Your task to perform on an android device: When is my next appointment? Image 0: 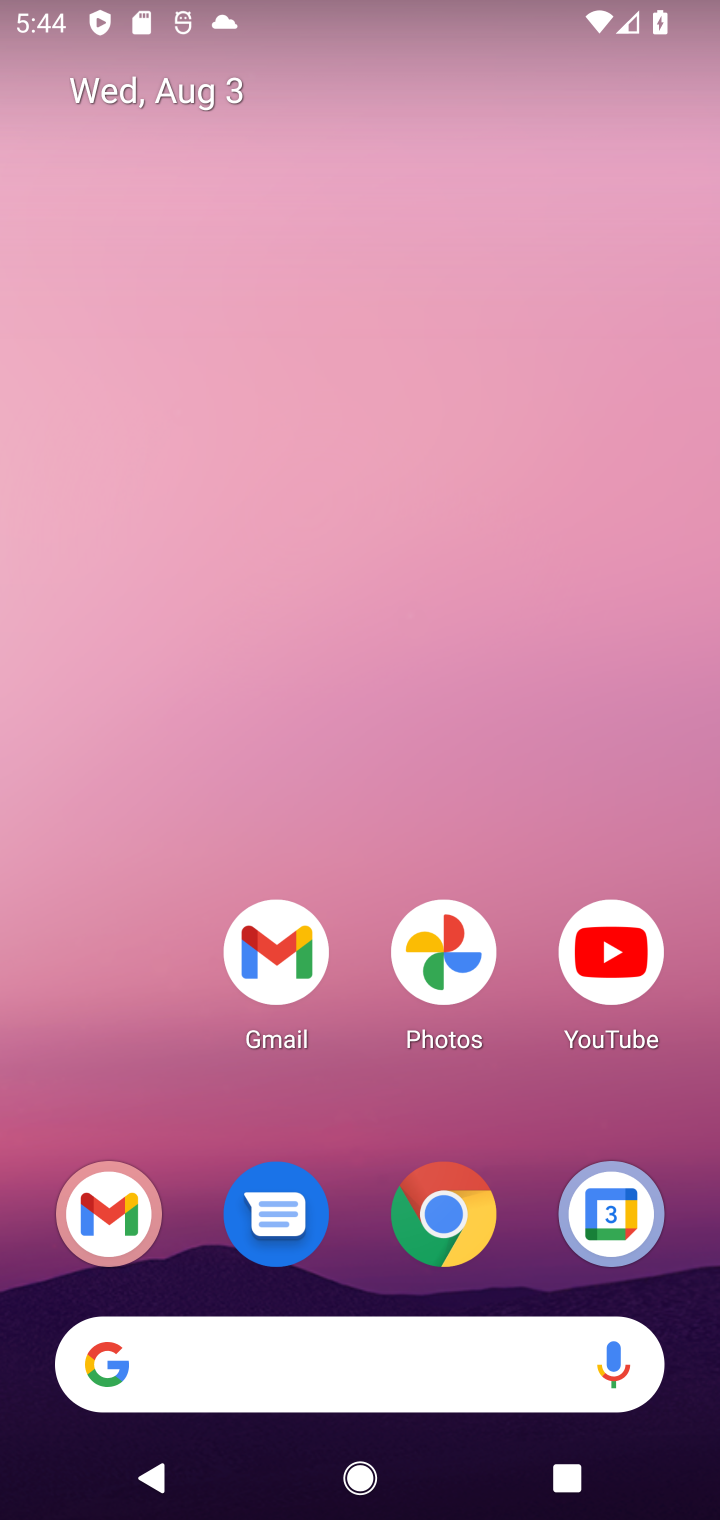
Step 0: drag from (36, 1239) to (545, 851)
Your task to perform on an android device: When is my next appointment? Image 1: 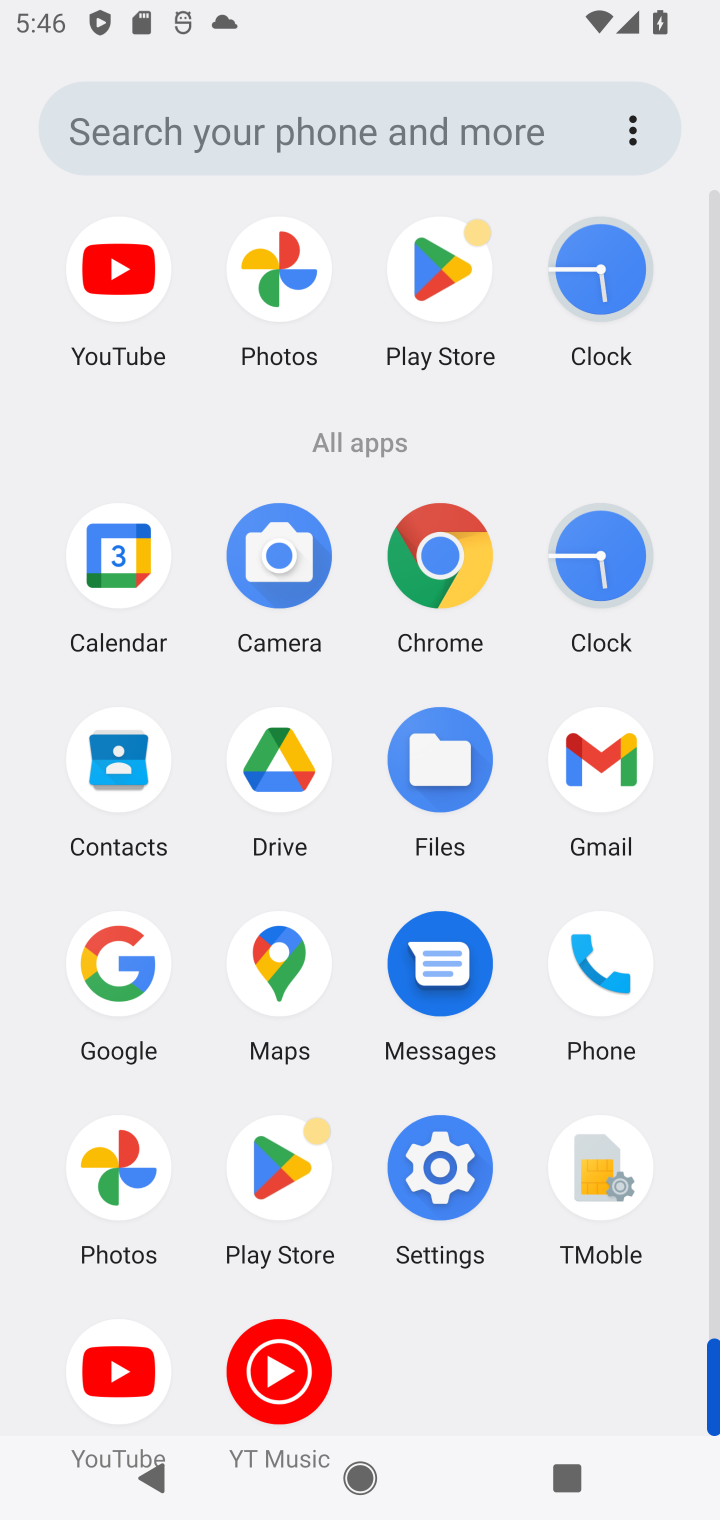
Step 1: click (129, 585)
Your task to perform on an android device: When is my next appointment? Image 2: 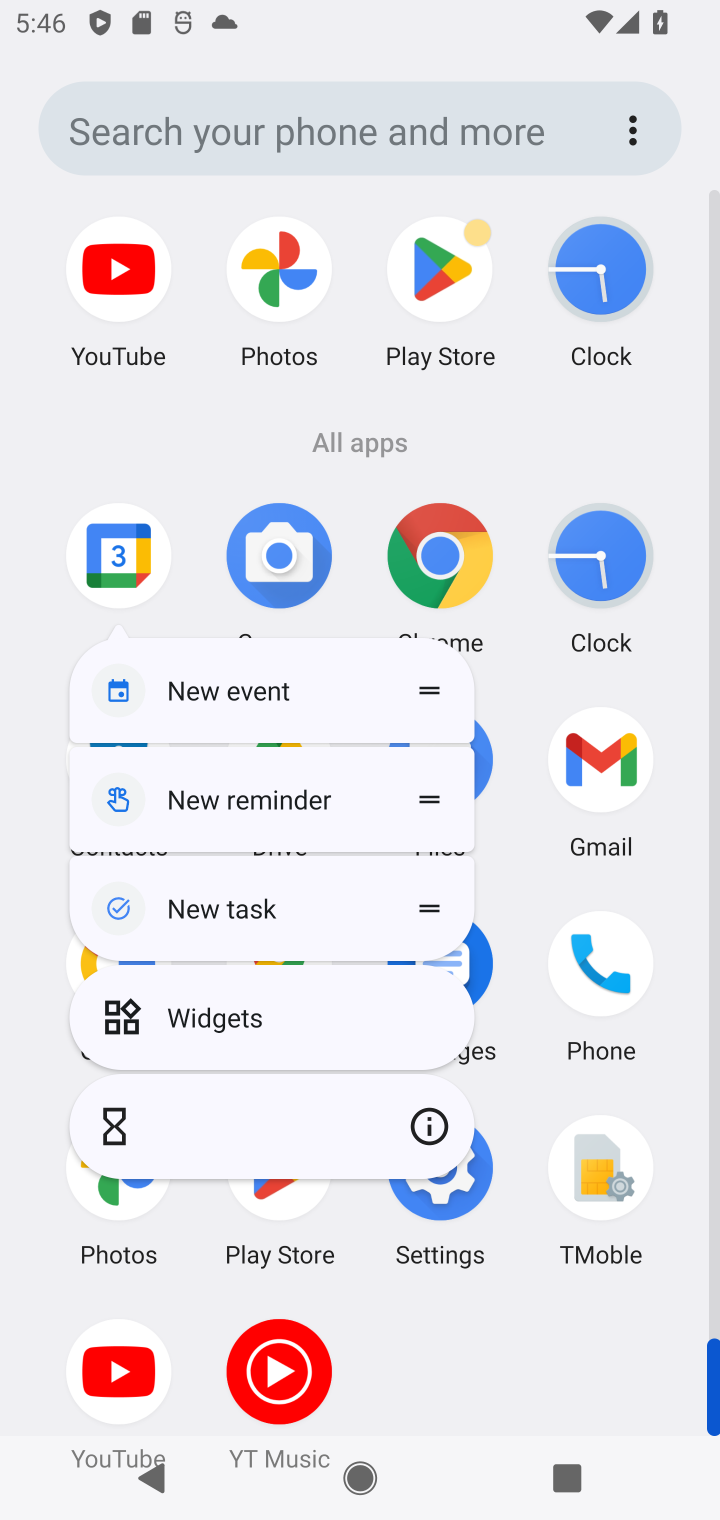
Step 2: click (127, 589)
Your task to perform on an android device: When is my next appointment? Image 3: 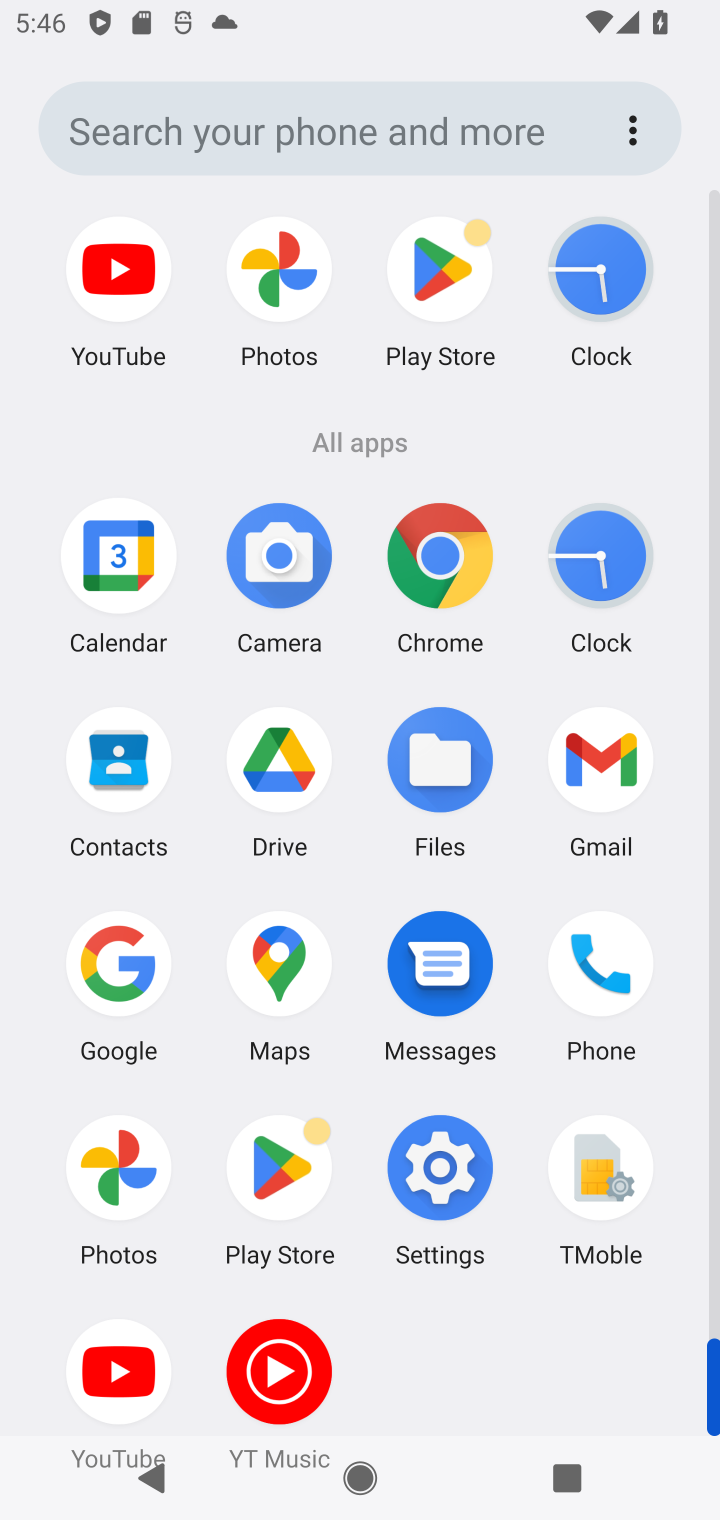
Step 3: click (113, 550)
Your task to perform on an android device: When is my next appointment? Image 4: 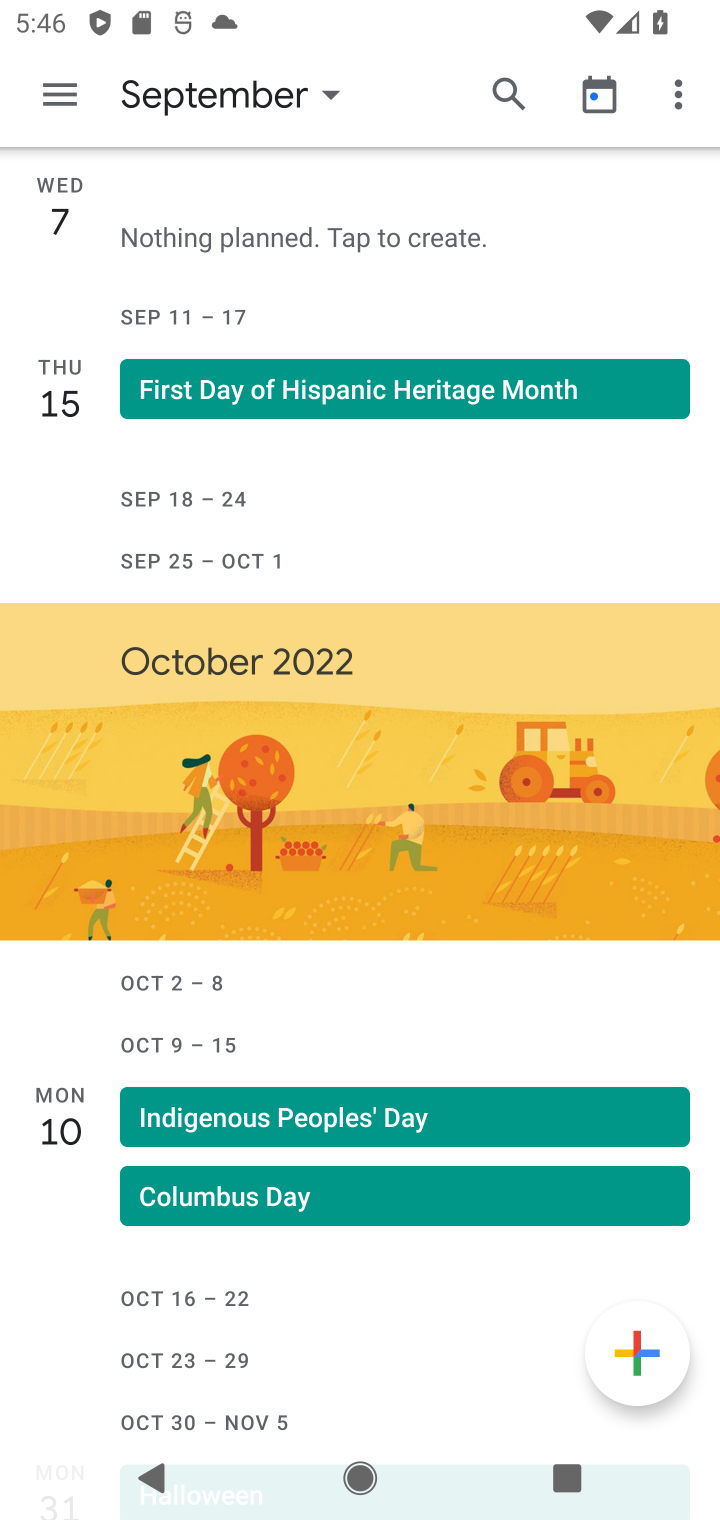
Step 4: click (255, 101)
Your task to perform on an android device: When is my next appointment? Image 5: 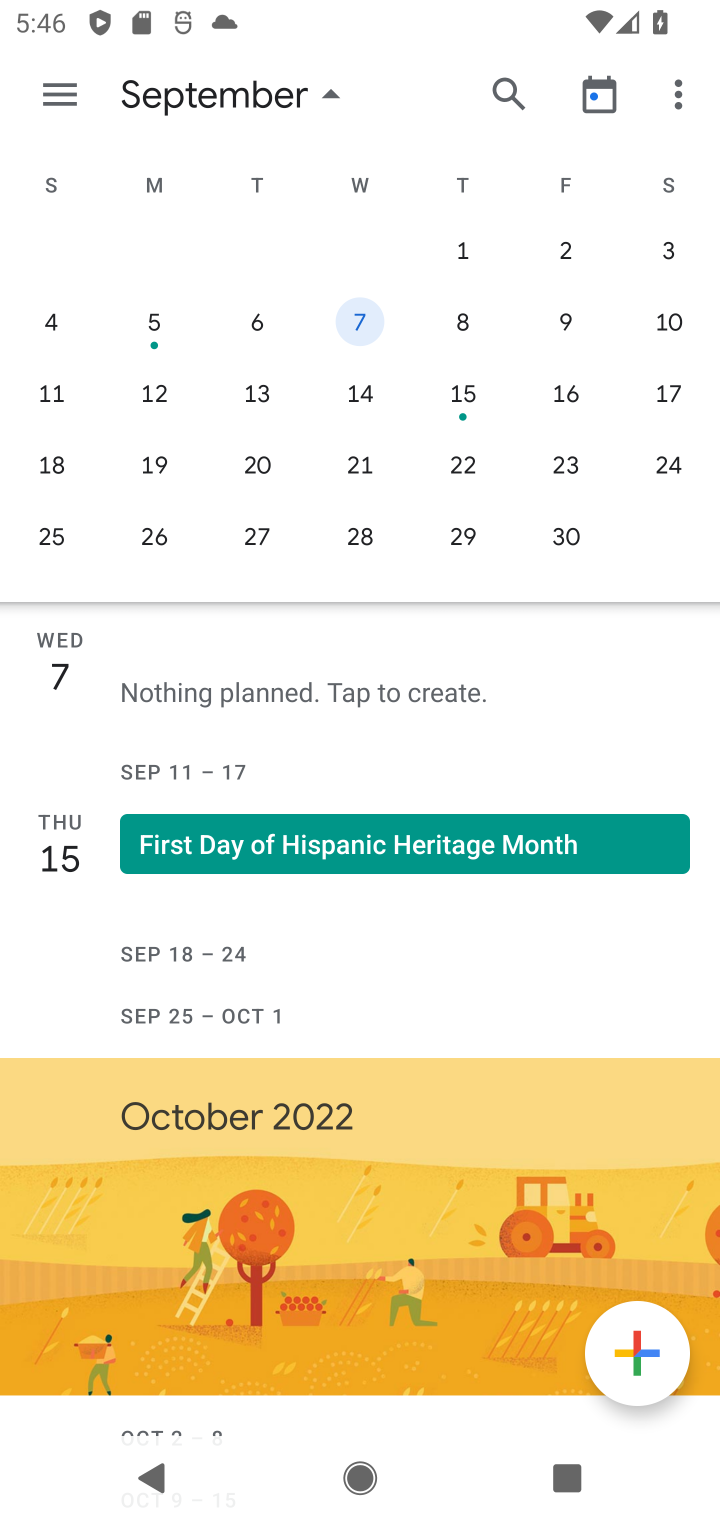
Step 5: task complete